Your task to perform on an android device: What's the weather today? Image 0: 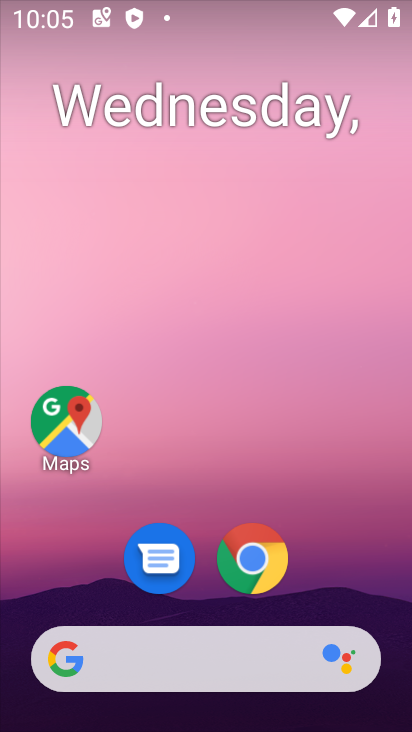
Step 0: click (187, 682)
Your task to perform on an android device: What's the weather today? Image 1: 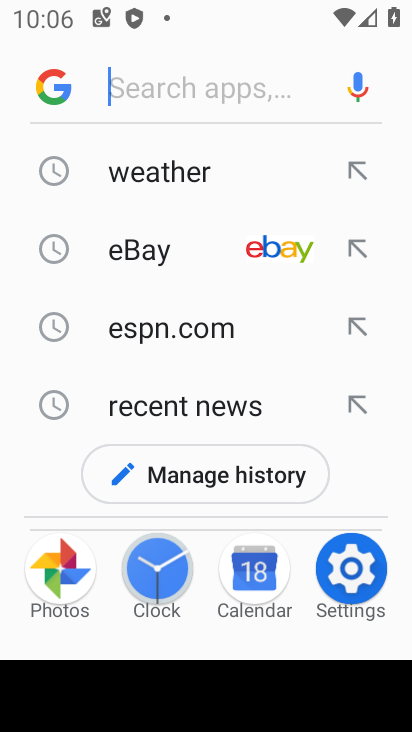
Step 1: click (150, 175)
Your task to perform on an android device: What's the weather today? Image 2: 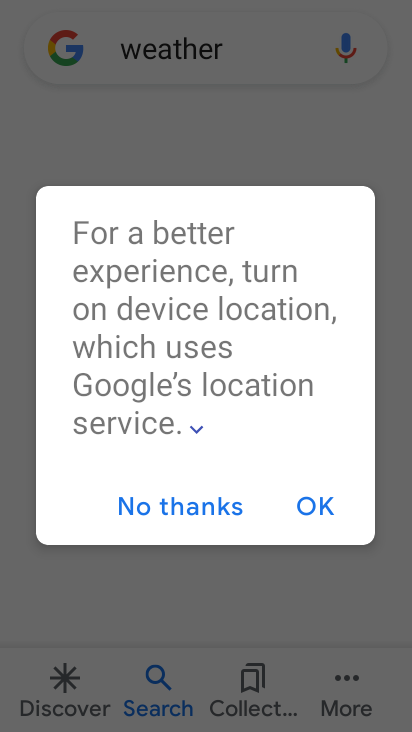
Step 2: task complete